Your task to perform on an android device: turn on airplane mode Image 0: 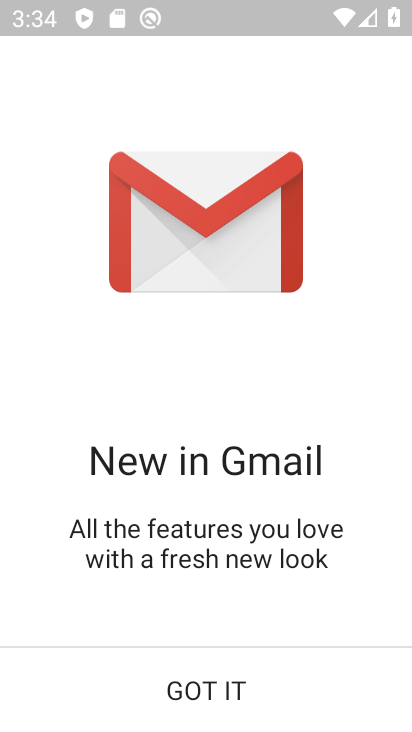
Step 0: click (195, 681)
Your task to perform on an android device: turn on airplane mode Image 1: 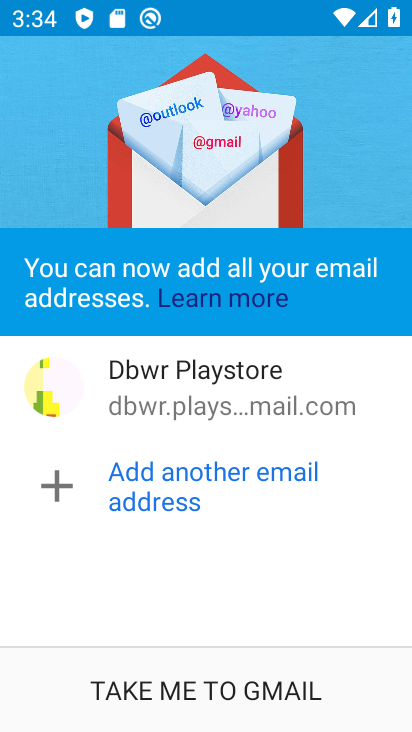
Step 1: click (168, 691)
Your task to perform on an android device: turn on airplane mode Image 2: 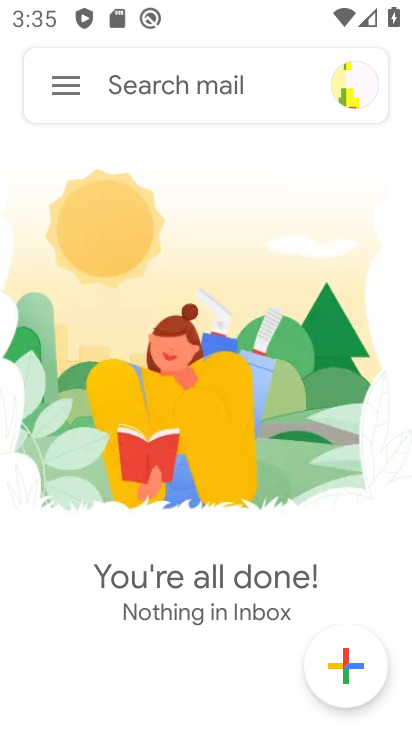
Step 2: drag from (333, 13) to (314, 580)
Your task to perform on an android device: turn on airplane mode Image 3: 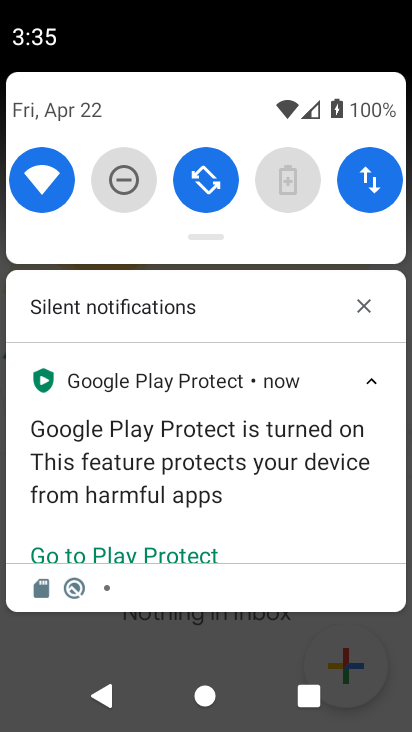
Step 3: drag from (209, 256) to (215, 633)
Your task to perform on an android device: turn on airplane mode Image 4: 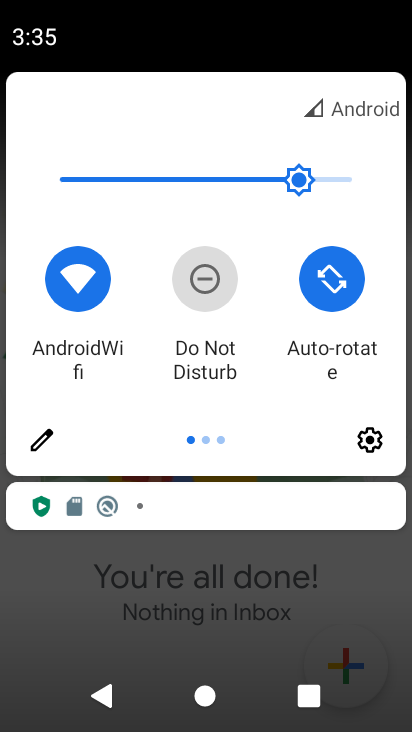
Step 4: drag from (376, 340) to (1, 306)
Your task to perform on an android device: turn on airplane mode Image 5: 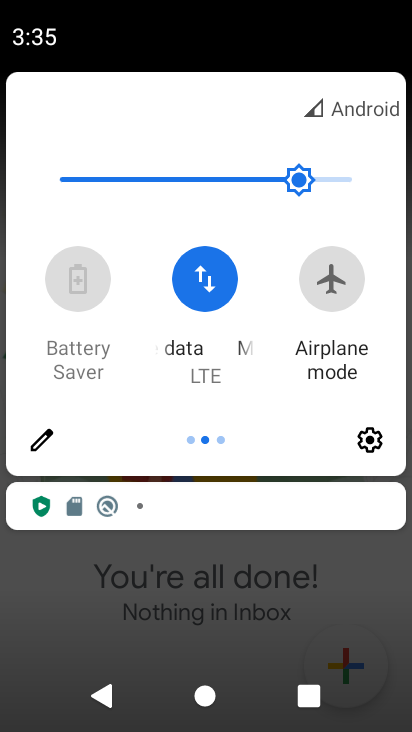
Step 5: click (308, 280)
Your task to perform on an android device: turn on airplane mode Image 6: 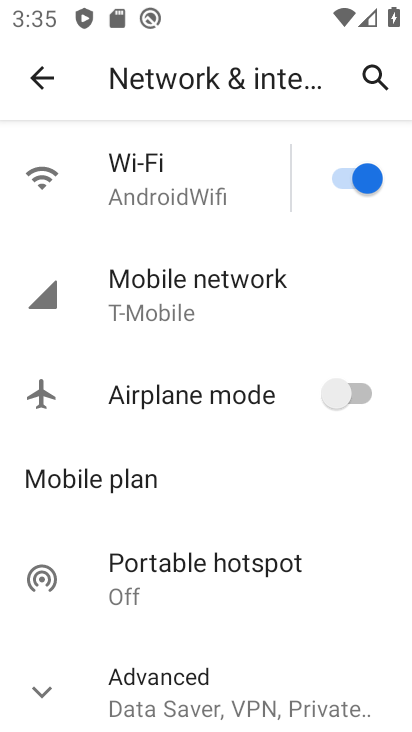
Step 6: click (338, 396)
Your task to perform on an android device: turn on airplane mode Image 7: 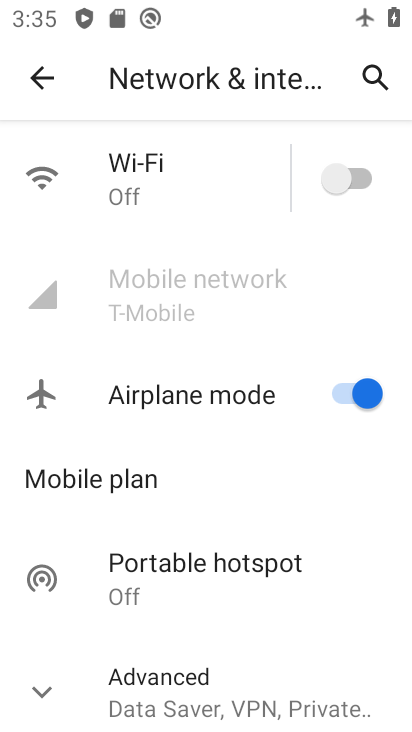
Step 7: task complete